Your task to perform on an android device: open device folders in google photos Image 0: 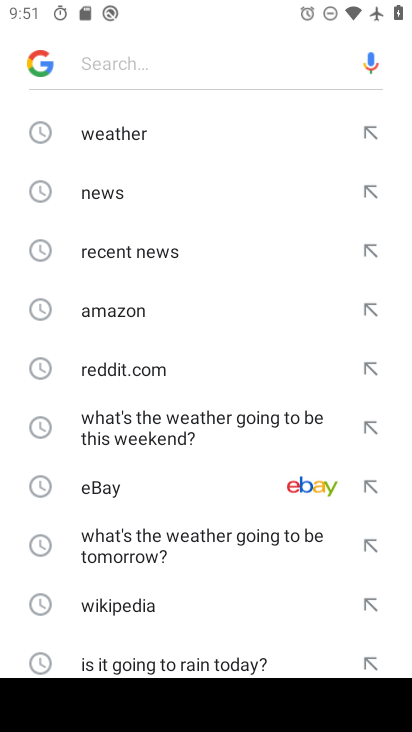
Step 0: press home button
Your task to perform on an android device: open device folders in google photos Image 1: 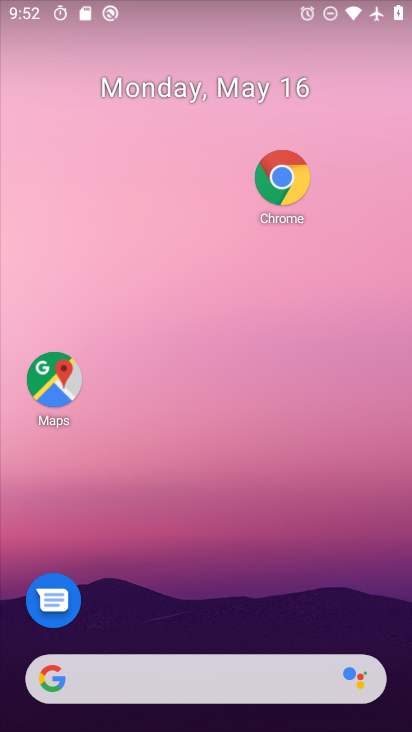
Step 1: drag from (200, 685) to (259, 204)
Your task to perform on an android device: open device folders in google photos Image 2: 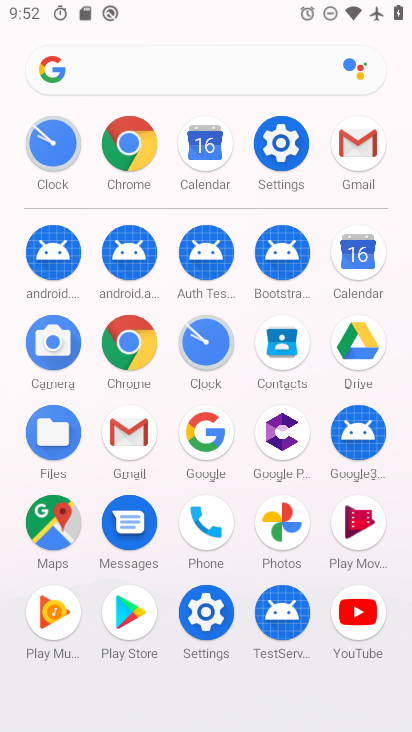
Step 2: click (289, 526)
Your task to perform on an android device: open device folders in google photos Image 3: 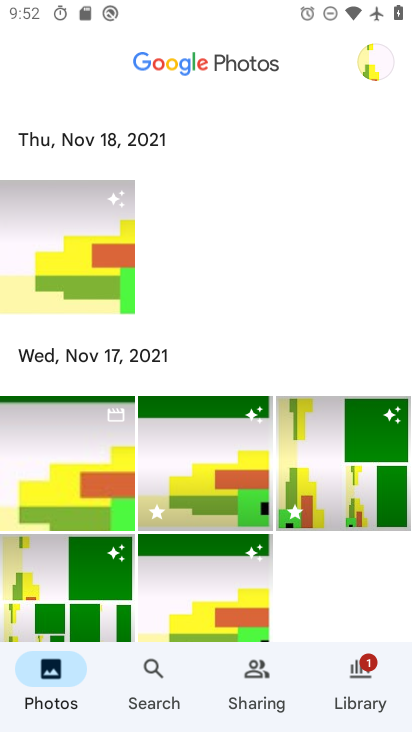
Step 3: click (369, 71)
Your task to perform on an android device: open device folders in google photos Image 4: 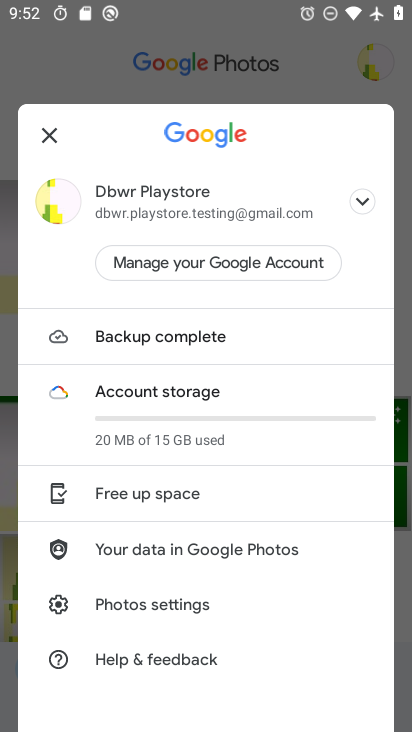
Step 4: click (190, 605)
Your task to perform on an android device: open device folders in google photos Image 5: 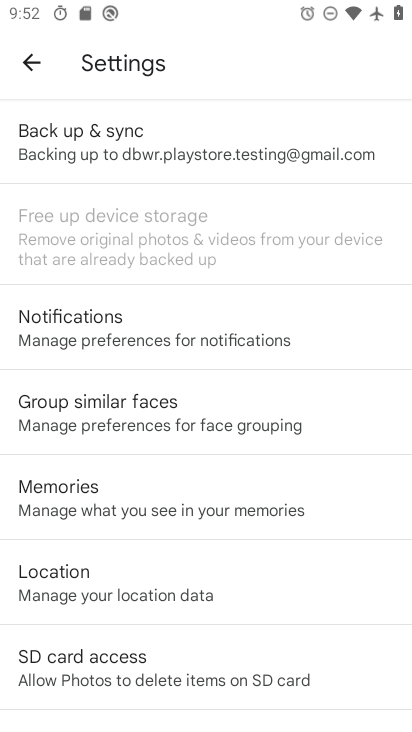
Step 5: task complete